Your task to perform on an android device: Go to Google Image 0: 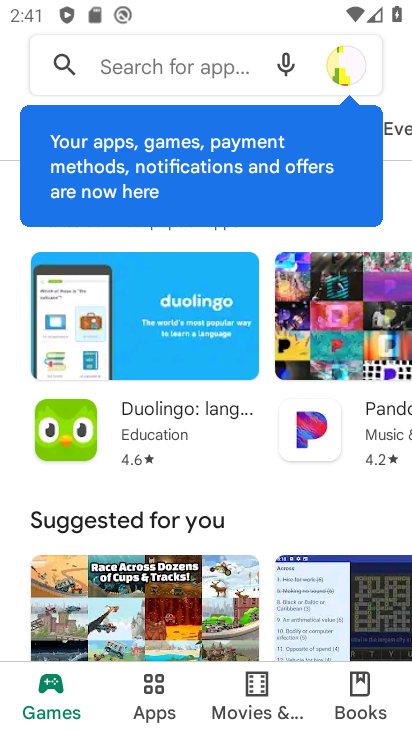
Step 0: press home button
Your task to perform on an android device: Go to Google Image 1: 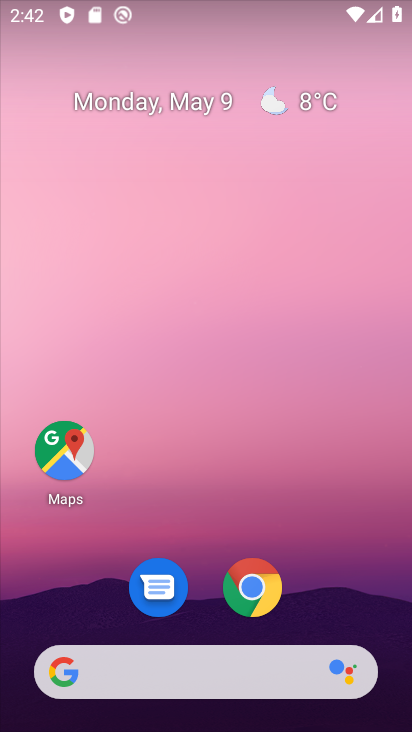
Step 1: click (52, 668)
Your task to perform on an android device: Go to Google Image 2: 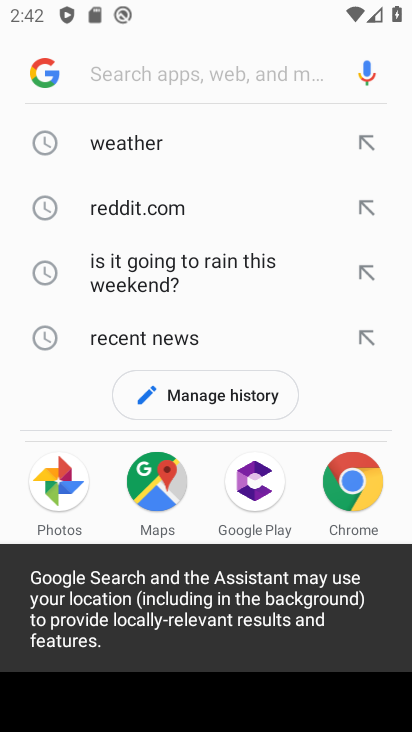
Step 2: click (38, 71)
Your task to perform on an android device: Go to Google Image 3: 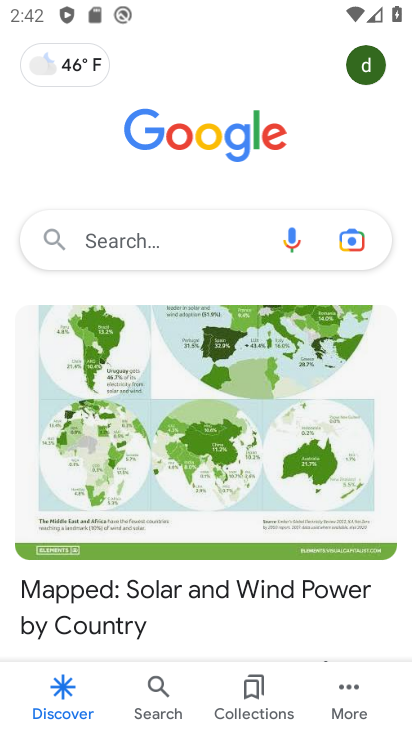
Step 3: task complete